Your task to perform on an android device: install app "Google Sheets" Image 0: 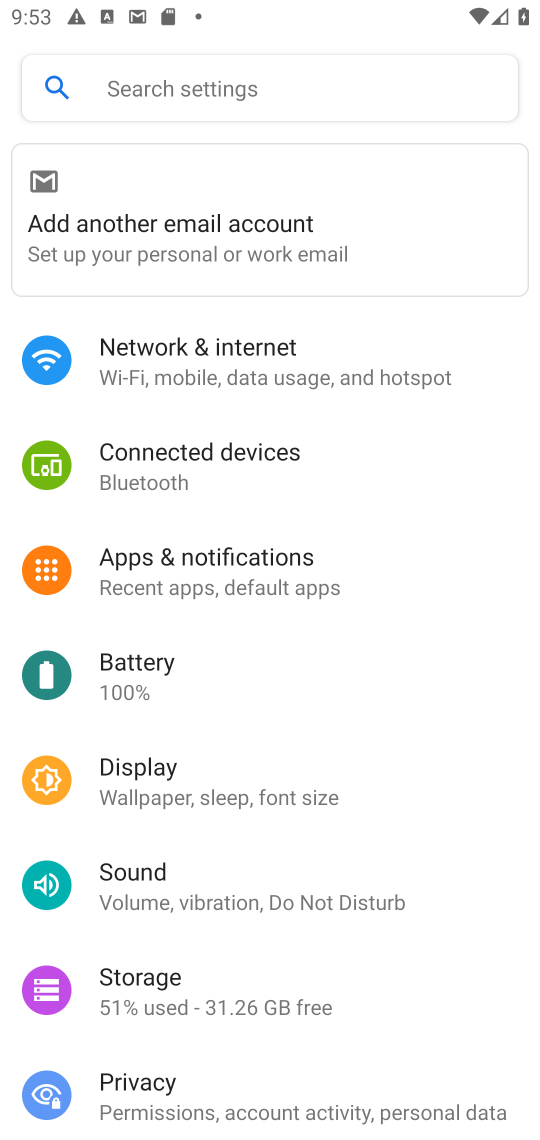
Step 0: press home button
Your task to perform on an android device: install app "Google Sheets" Image 1: 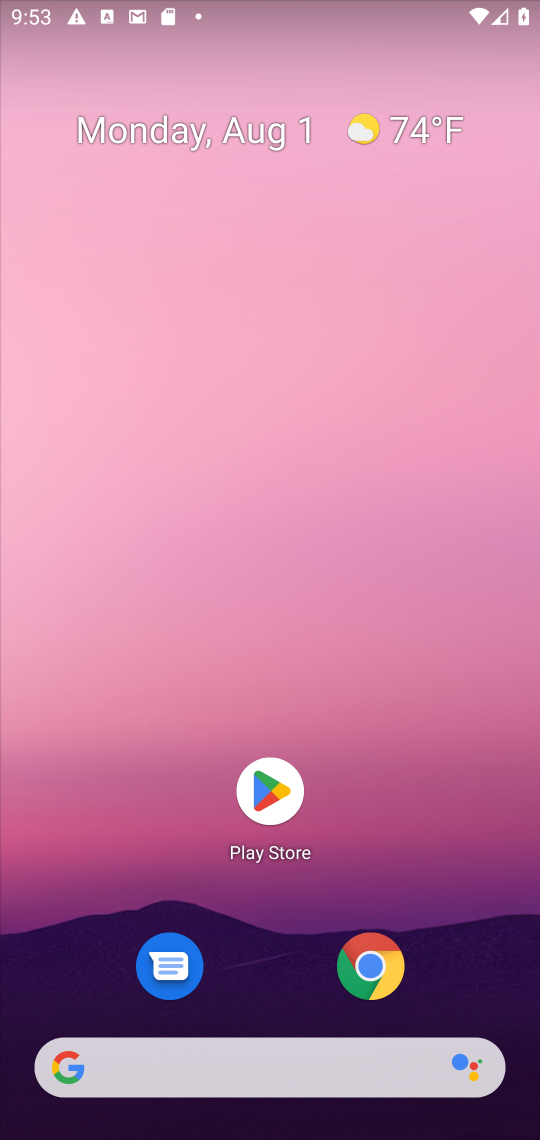
Step 1: click (378, 962)
Your task to perform on an android device: install app "Google Sheets" Image 2: 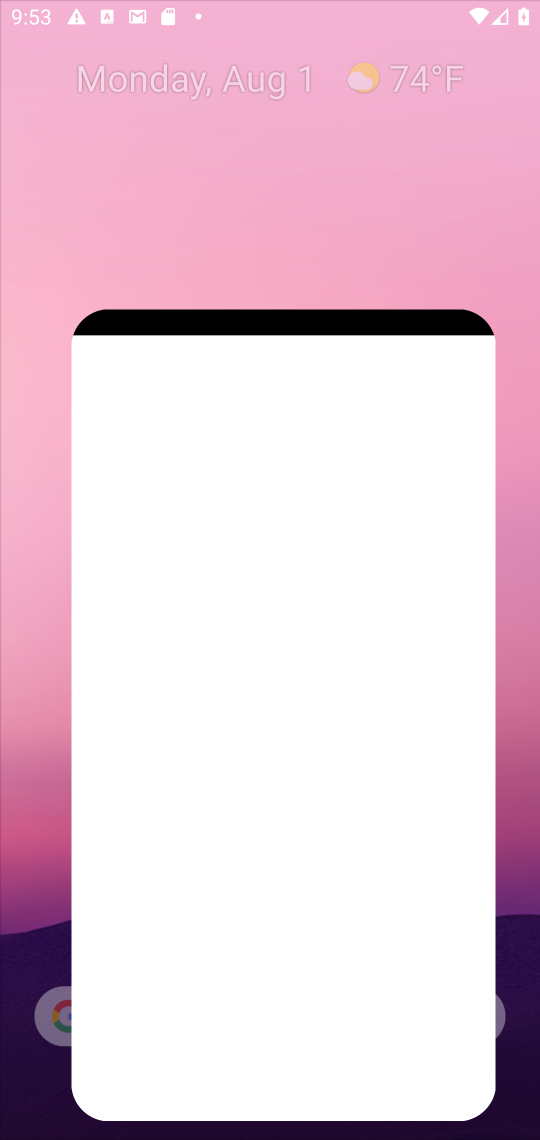
Step 2: press home button
Your task to perform on an android device: install app "Google Sheets" Image 3: 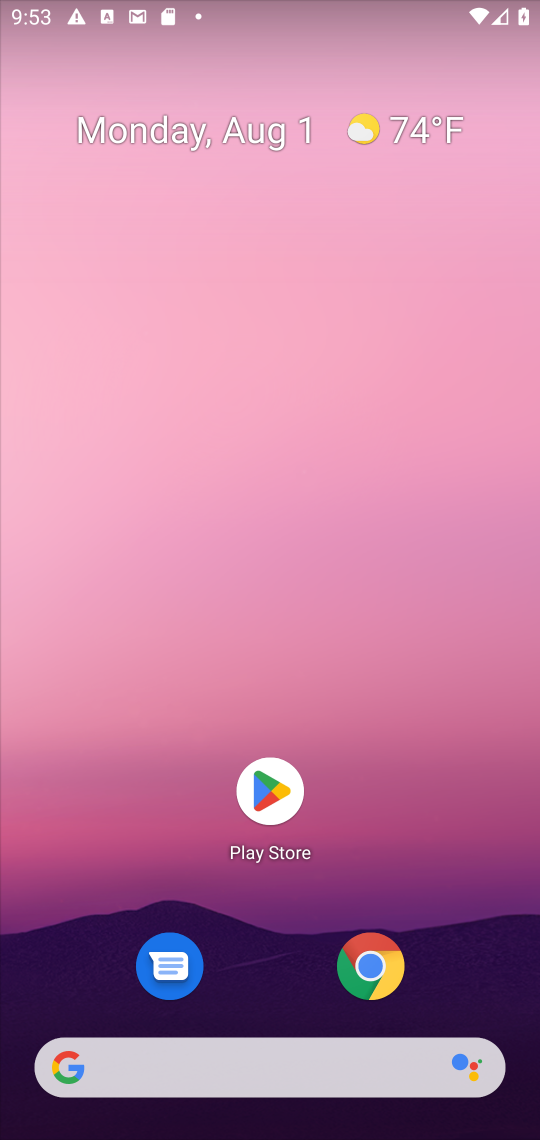
Step 3: click (263, 792)
Your task to perform on an android device: install app "Google Sheets" Image 4: 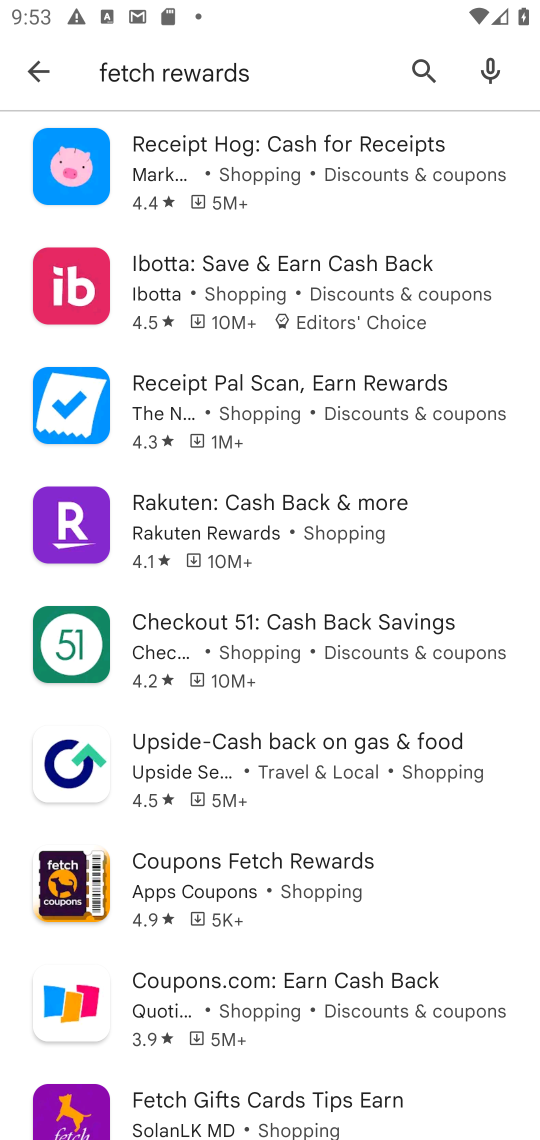
Step 4: click (410, 60)
Your task to perform on an android device: install app "Google Sheets" Image 5: 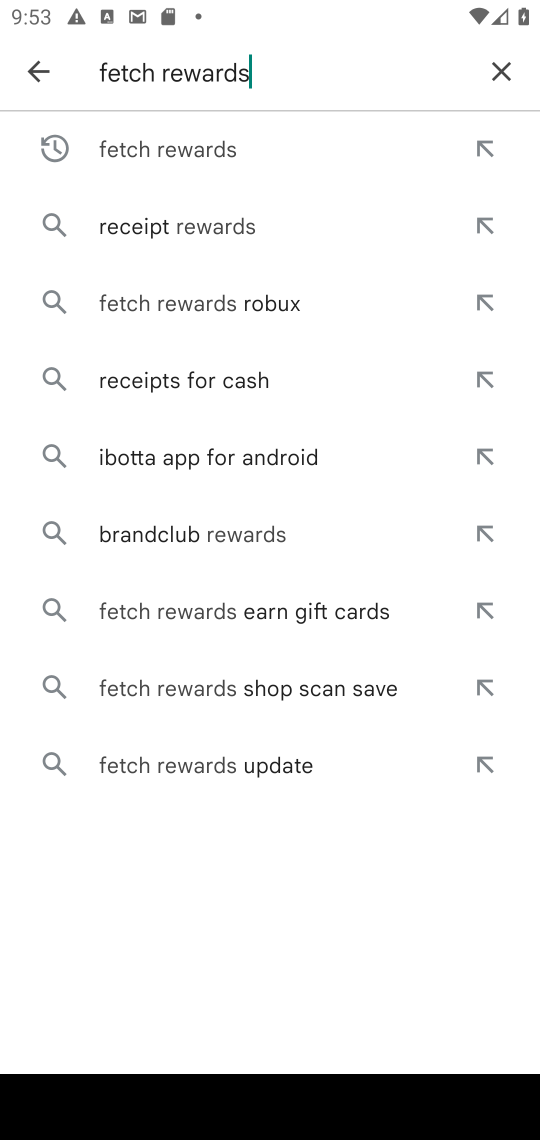
Step 5: click (511, 64)
Your task to perform on an android device: install app "Google Sheets" Image 6: 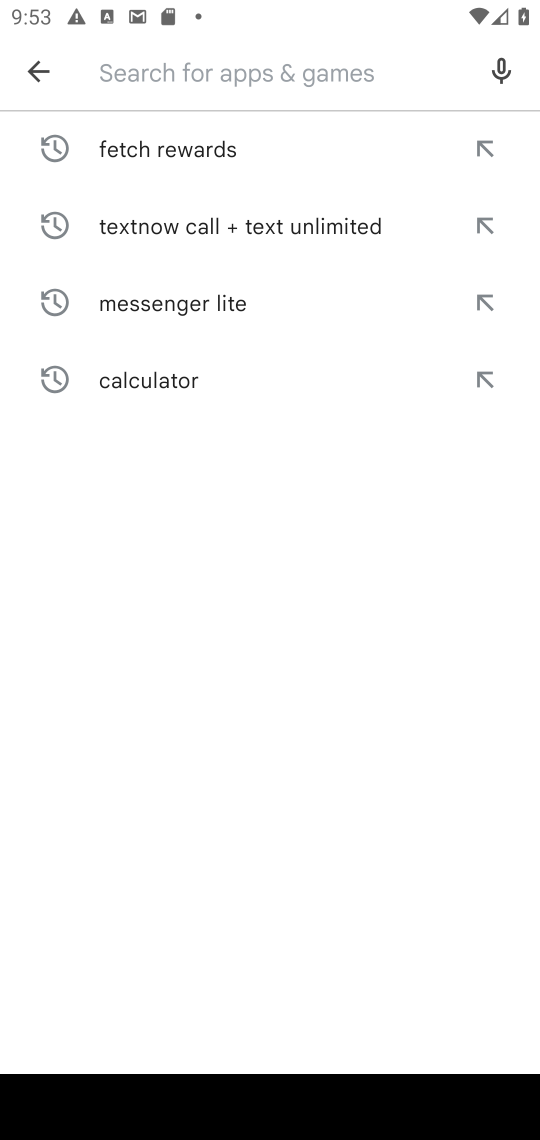
Step 6: type "Google Sheets"
Your task to perform on an android device: install app "Google Sheets" Image 7: 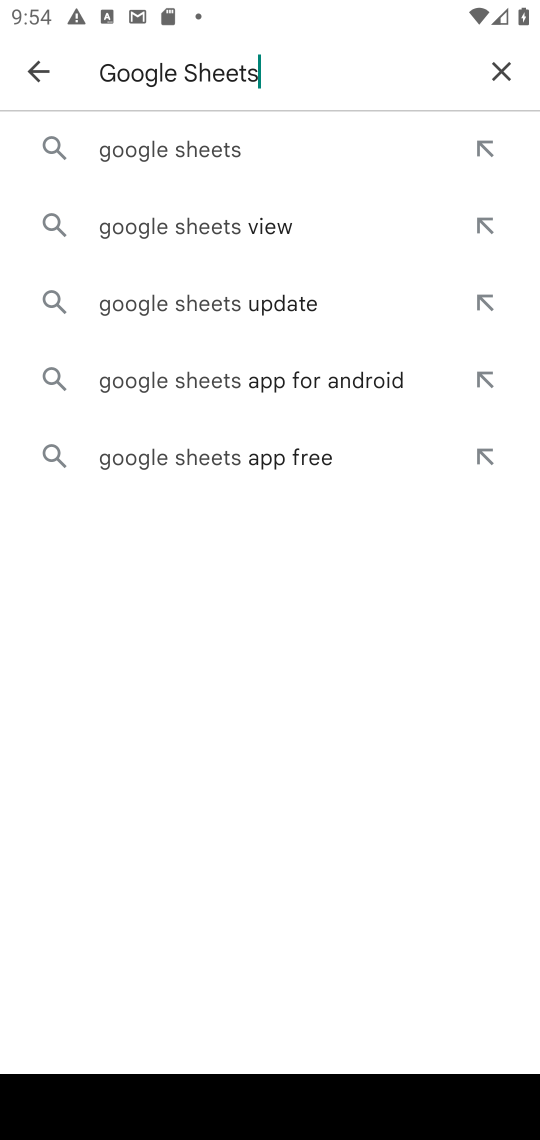
Step 7: click (164, 148)
Your task to perform on an android device: install app "Google Sheets" Image 8: 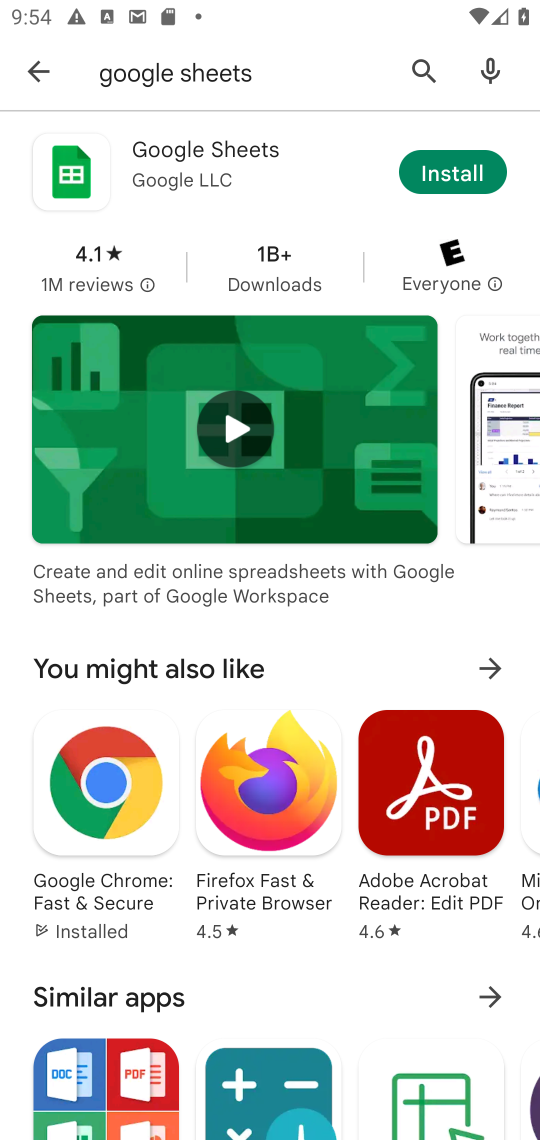
Step 8: click (457, 165)
Your task to perform on an android device: install app "Google Sheets" Image 9: 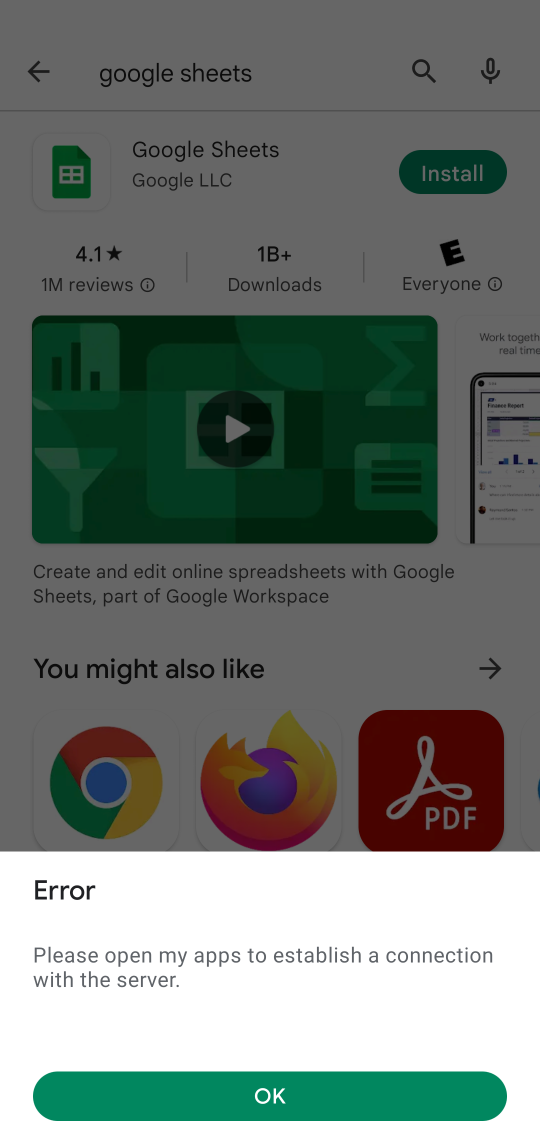
Step 9: click (300, 1116)
Your task to perform on an android device: install app "Google Sheets" Image 10: 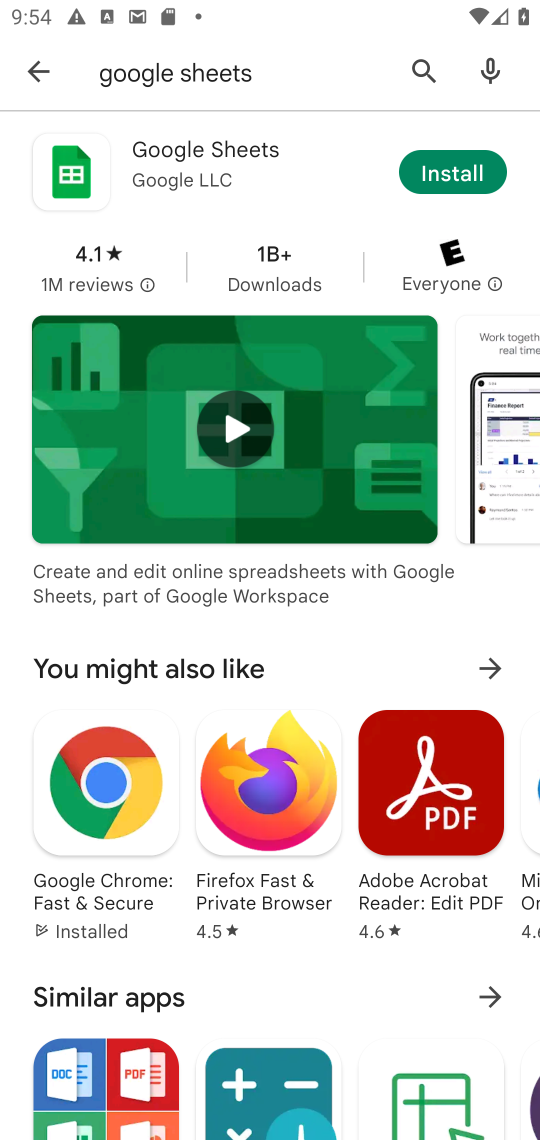
Step 10: click (458, 170)
Your task to perform on an android device: install app "Google Sheets" Image 11: 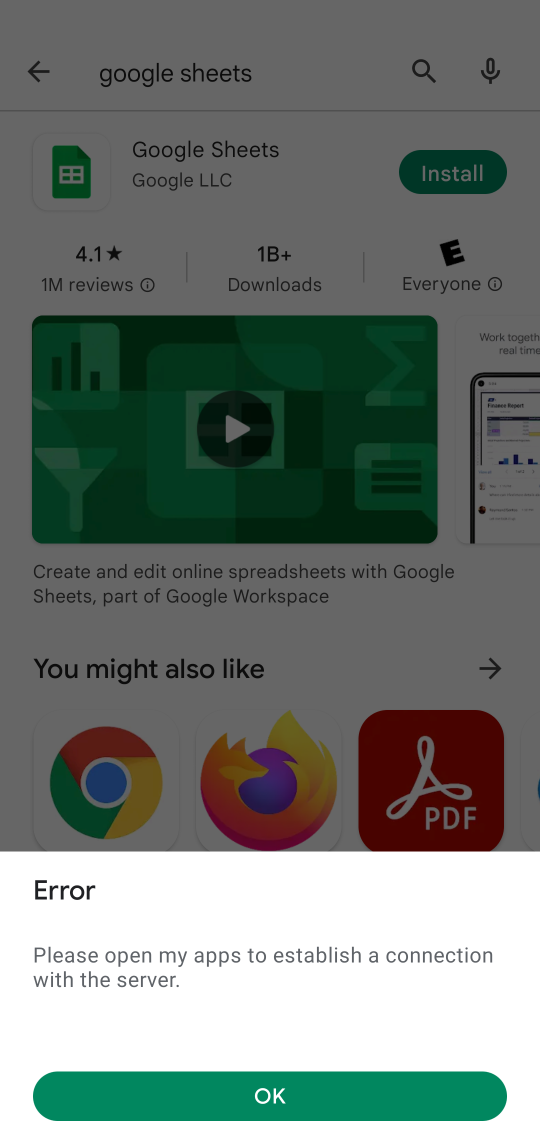
Step 11: task complete